Your task to perform on an android device: Open Google Maps and go to "Timeline" Image 0: 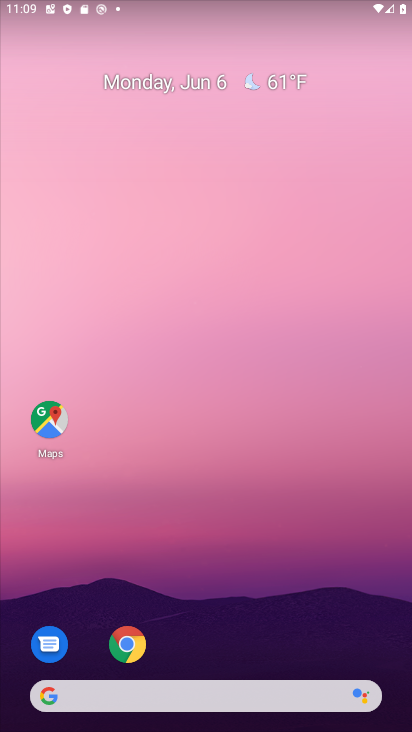
Step 0: drag from (211, 686) to (214, 52)
Your task to perform on an android device: Open Google Maps and go to "Timeline" Image 1: 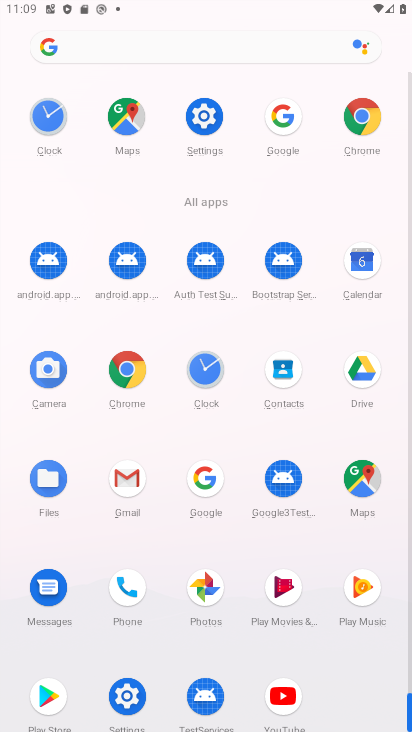
Step 1: click (364, 466)
Your task to perform on an android device: Open Google Maps and go to "Timeline" Image 2: 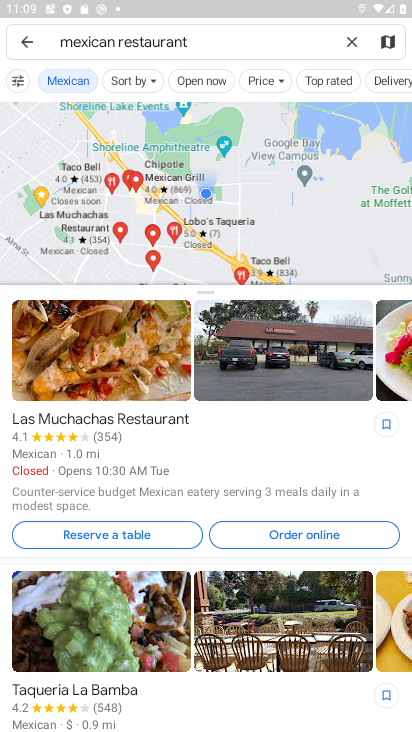
Step 2: click (25, 42)
Your task to perform on an android device: Open Google Maps and go to "Timeline" Image 3: 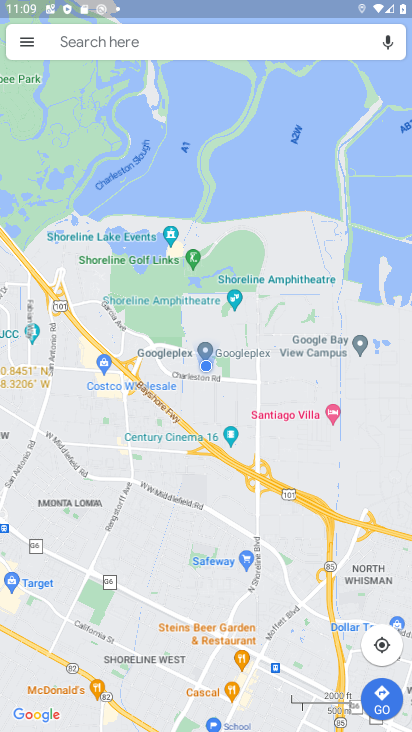
Step 3: click (25, 43)
Your task to perform on an android device: Open Google Maps and go to "Timeline" Image 4: 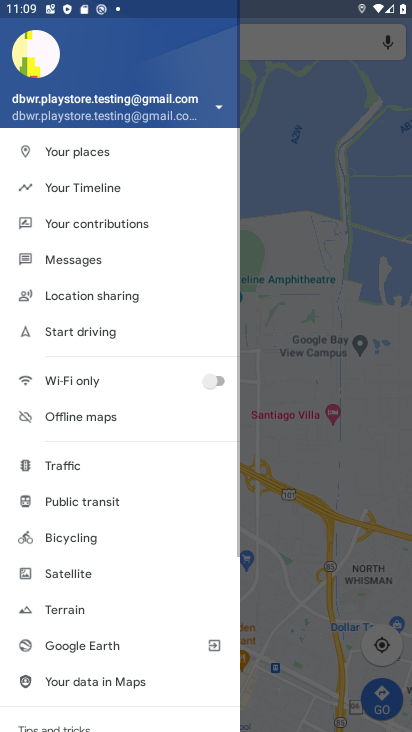
Step 4: click (133, 186)
Your task to perform on an android device: Open Google Maps and go to "Timeline" Image 5: 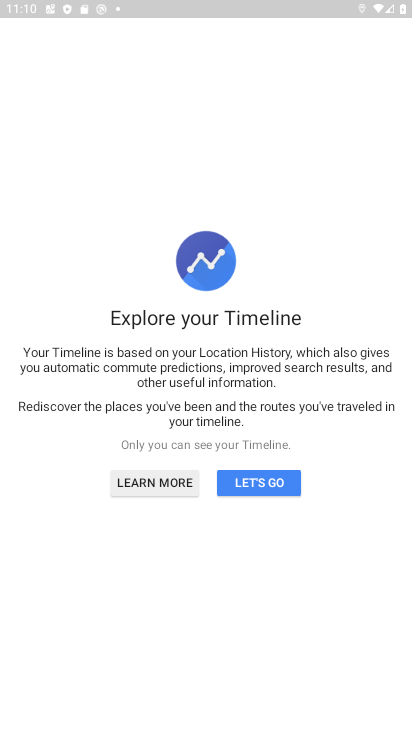
Step 5: click (270, 484)
Your task to perform on an android device: Open Google Maps and go to "Timeline" Image 6: 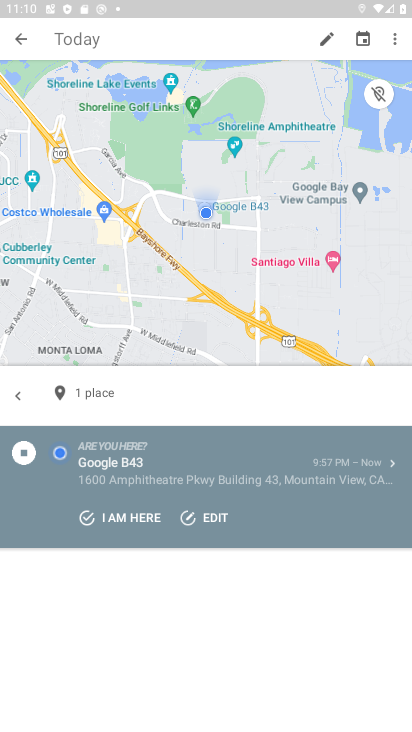
Step 6: task complete